Your task to perform on an android device: open app "Mercado Libre" (install if not already installed) and go to login screen Image 0: 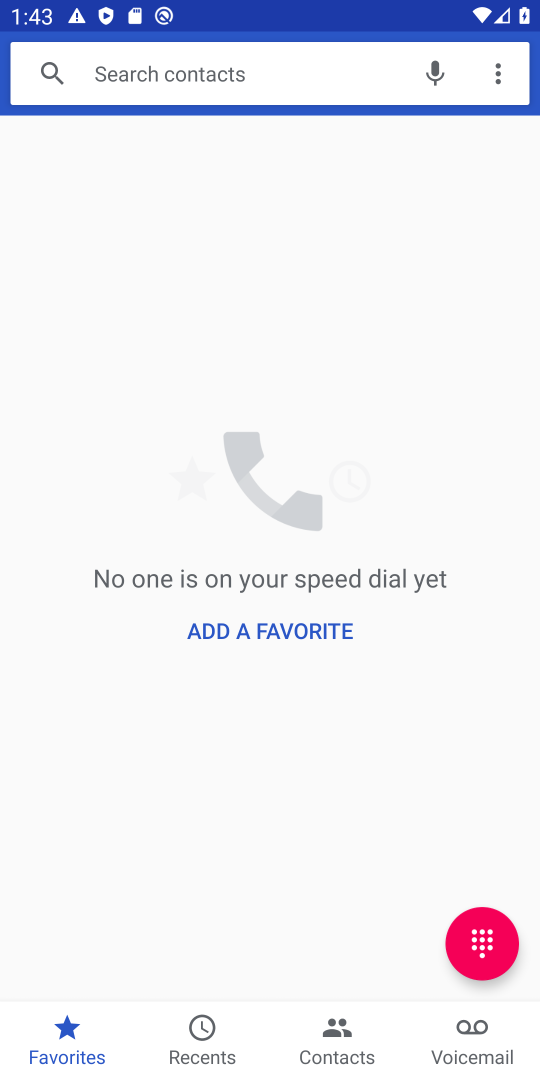
Step 0: press home button
Your task to perform on an android device: open app "Mercado Libre" (install if not already installed) and go to login screen Image 1: 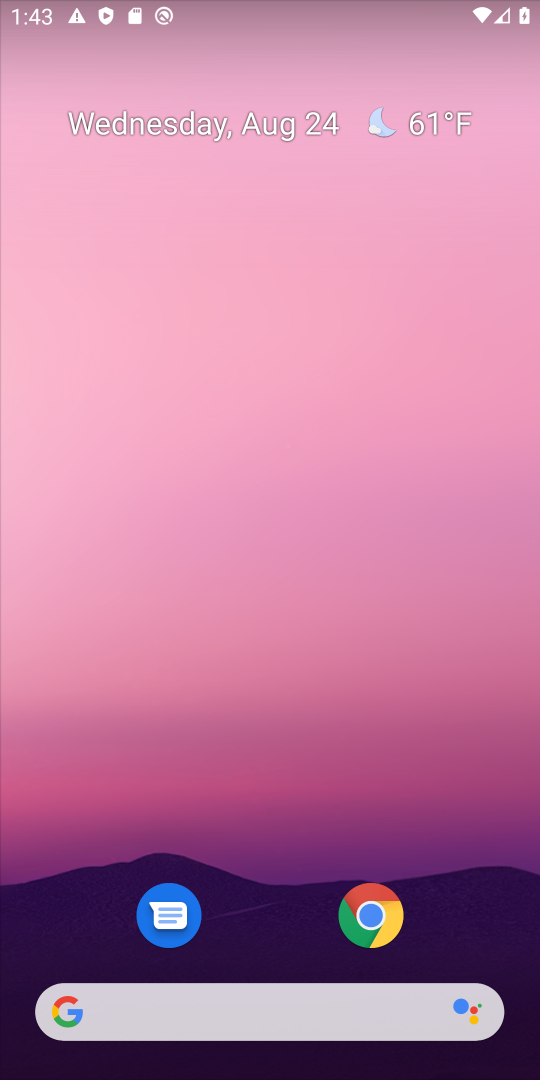
Step 1: drag from (280, 812) to (289, 230)
Your task to perform on an android device: open app "Mercado Libre" (install if not already installed) and go to login screen Image 2: 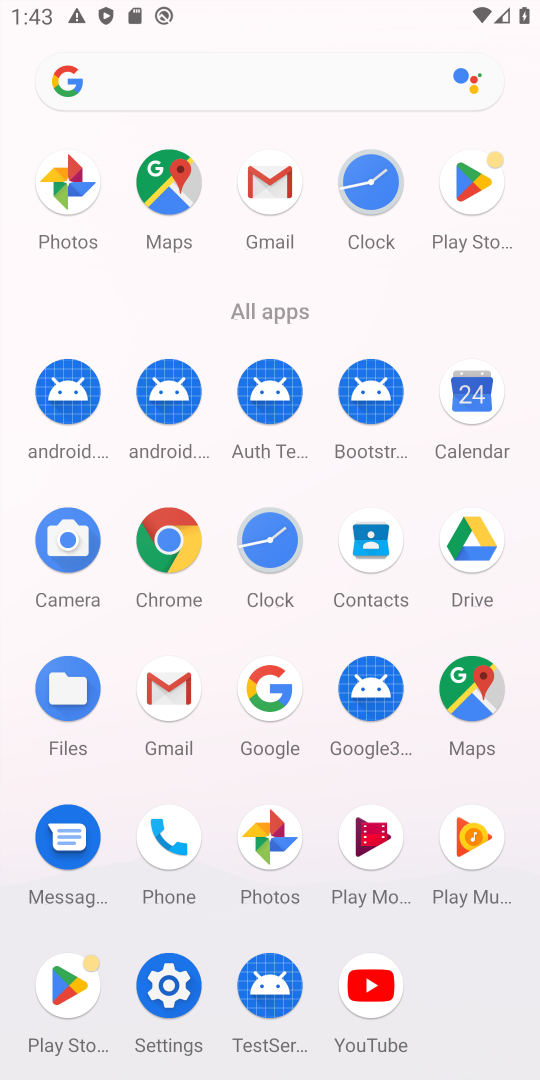
Step 2: click (474, 179)
Your task to perform on an android device: open app "Mercado Libre" (install if not already installed) and go to login screen Image 3: 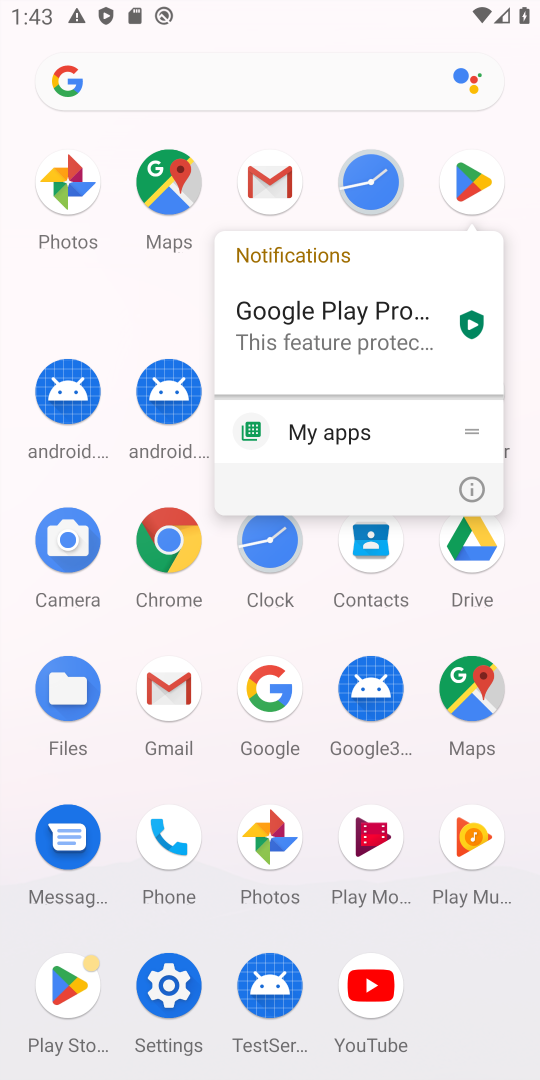
Step 3: click (474, 179)
Your task to perform on an android device: open app "Mercado Libre" (install if not already installed) and go to login screen Image 4: 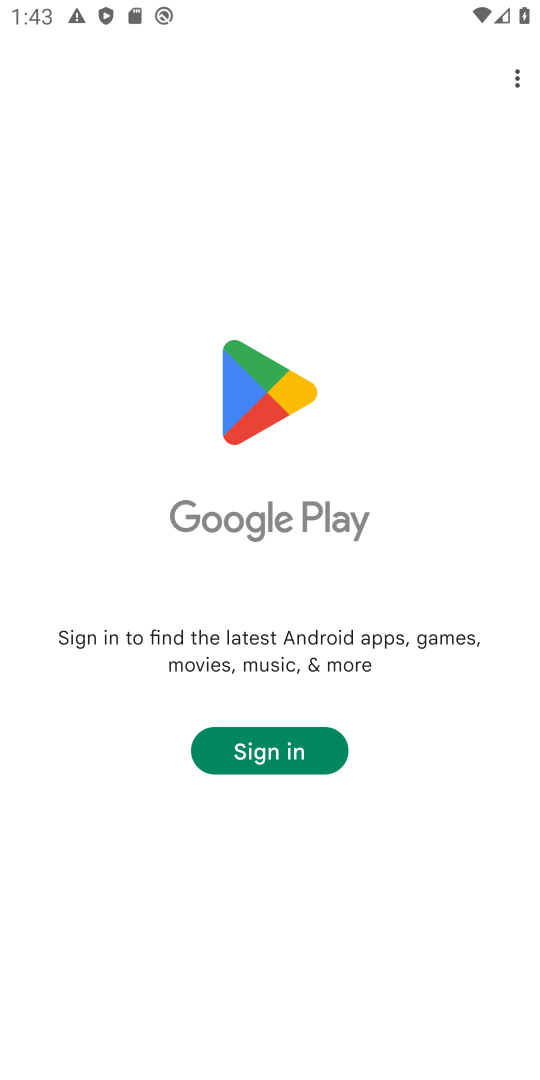
Step 4: task complete